Your task to perform on an android device: see sites visited before in the chrome app Image 0: 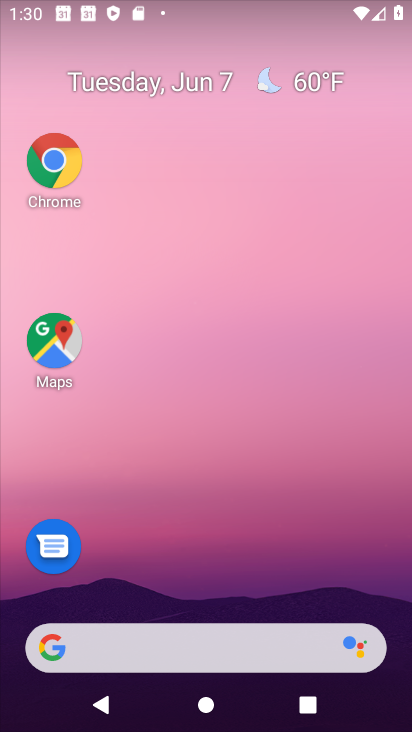
Step 0: drag from (132, 614) to (153, 48)
Your task to perform on an android device: see sites visited before in the chrome app Image 1: 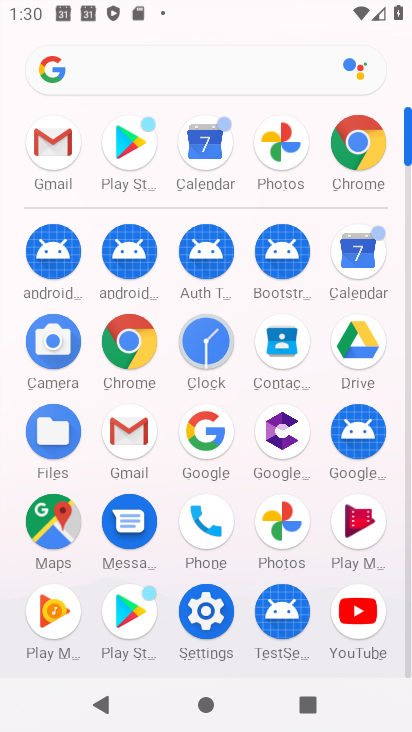
Step 1: click (130, 350)
Your task to perform on an android device: see sites visited before in the chrome app Image 2: 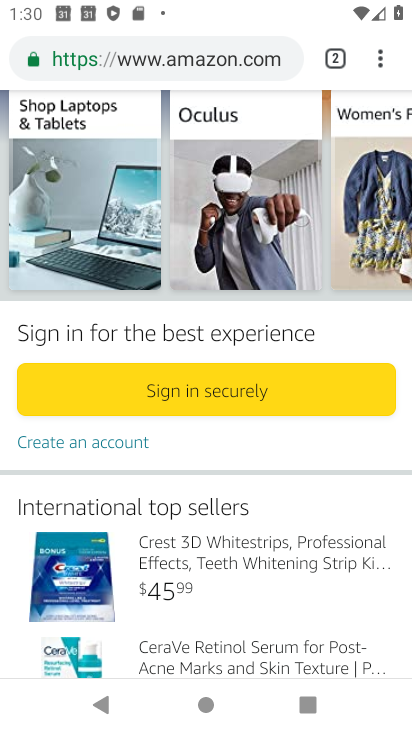
Step 2: click (382, 56)
Your task to perform on an android device: see sites visited before in the chrome app Image 3: 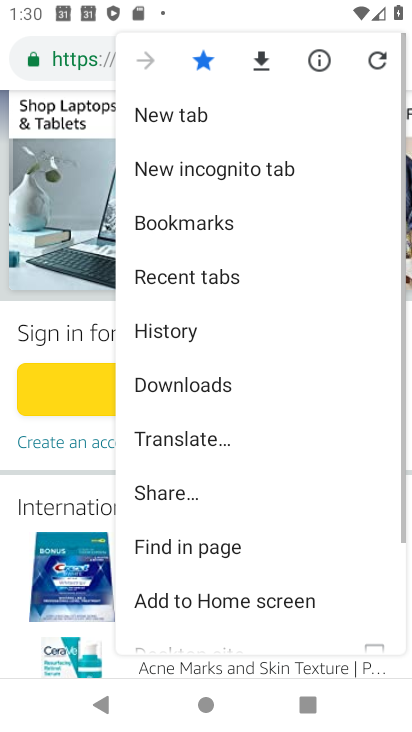
Step 3: click (199, 229)
Your task to perform on an android device: see sites visited before in the chrome app Image 4: 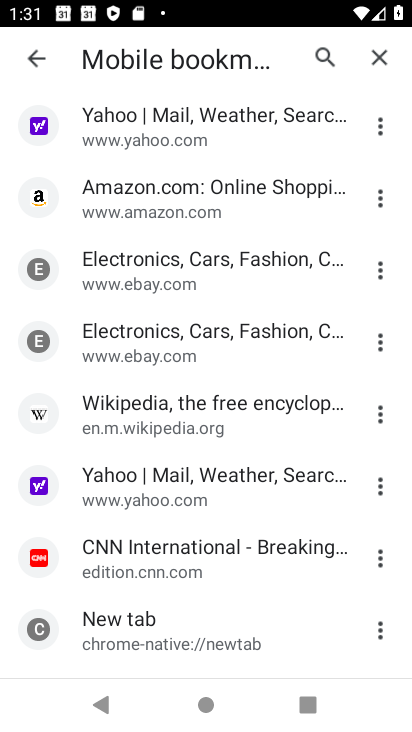
Step 4: task complete